Your task to perform on an android device: Open Chrome and go to the settings page Image 0: 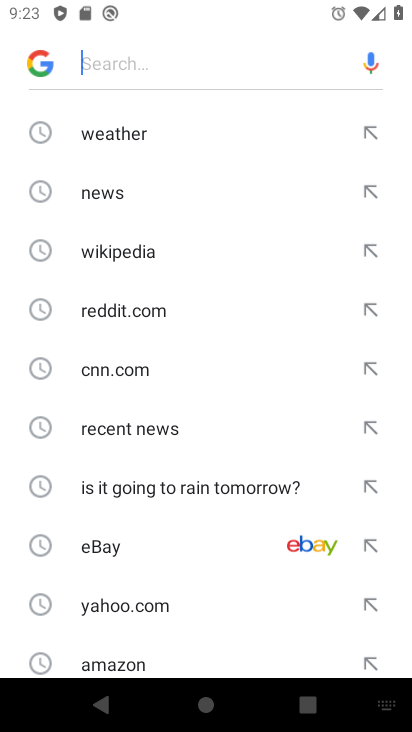
Step 0: press back button
Your task to perform on an android device: Open Chrome and go to the settings page Image 1: 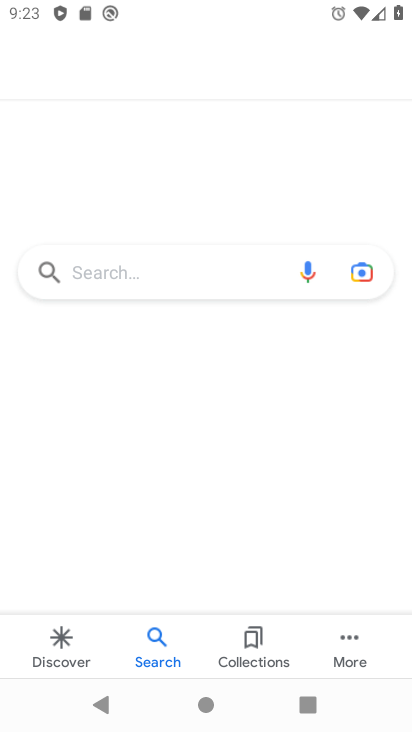
Step 1: press home button
Your task to perform on an android device: Open Chrome and go to the settings page Image 2: 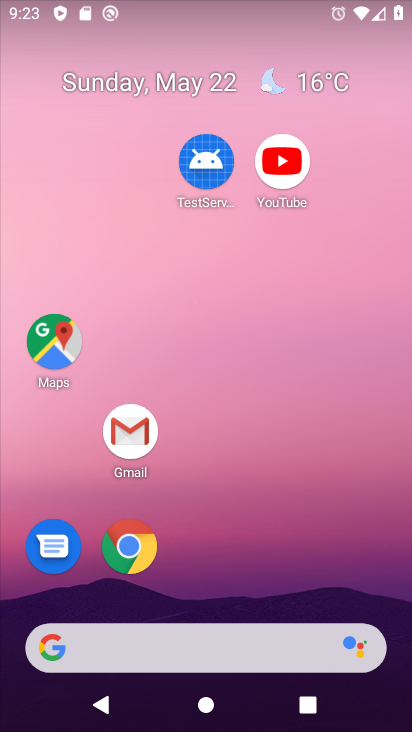
Step 2: drag from (263, 636) to (202, 23)
Your task to perform on an android device: Open Chrome and go to the settings page Image 3: 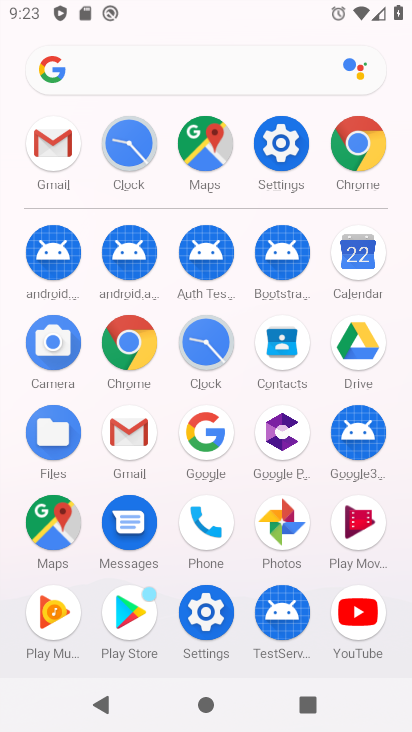
Step 3: click (279, 133)
Your task to perform on an android device: Open Chrome and go to the settings page Image 4: 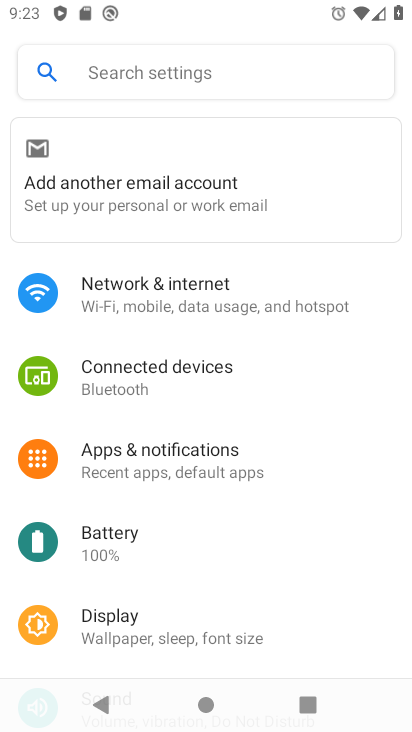
Step 4: drag from (156, 615) to (137, 251)
Your task to perform on an android device: Open Chrome and go to the settings page Image 5: 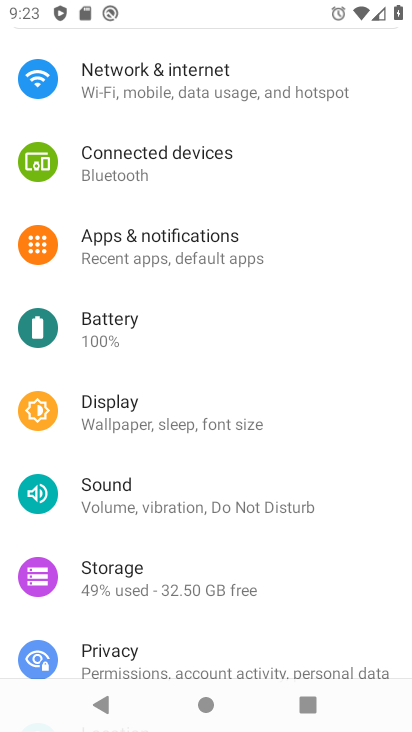
Step 5: drag from (210, 499) to (219, 265)
Your task to perform on an android device: Open Chrome and go to the settings page Image 6: 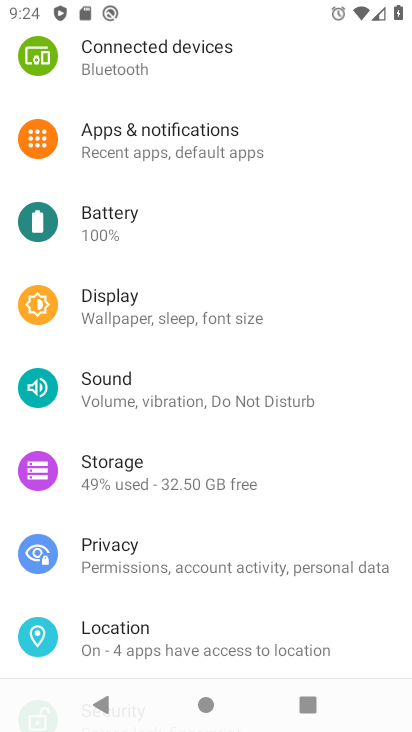
Step 6: drag from (129, 574) to (161, 252)
Your task to perform on an android device: Open Chrome and go to the settings page Image 7: 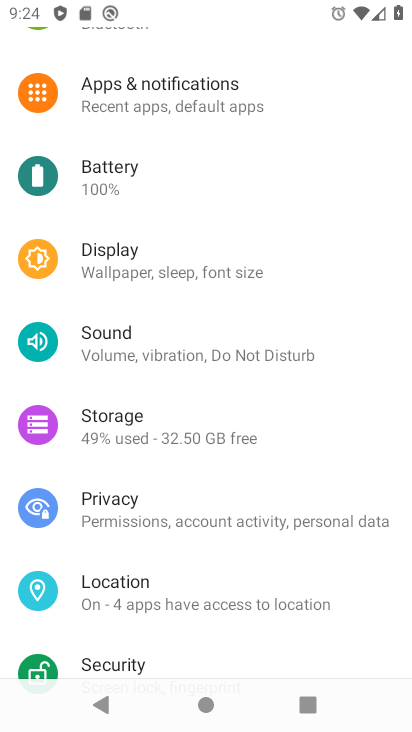
Step 7: drag from (190, 394) to (234, 153)
Your task to perform on an android device: Open Chrome and go to the settings page Image 8: 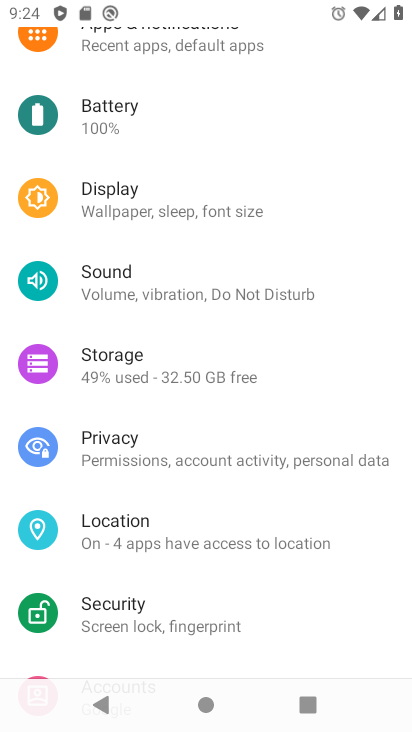
Step 8: press back button
Your task to perform on an android device: Open Chrome and go to the settings page Image 9: 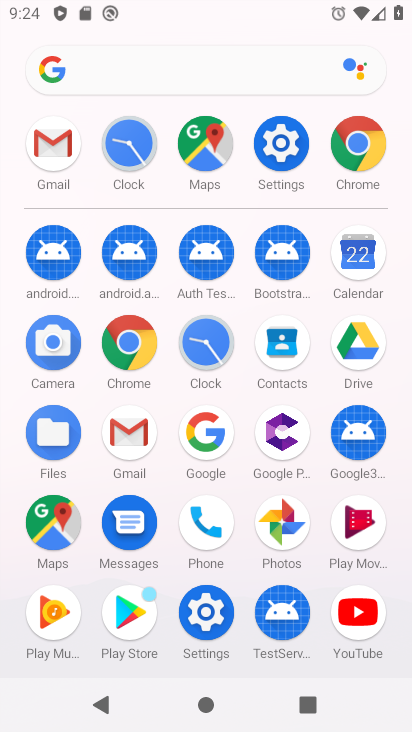
Step 9: click (346, 149)
Your task to perform on an android device: Open Chrome and go to the settings page Image 10: 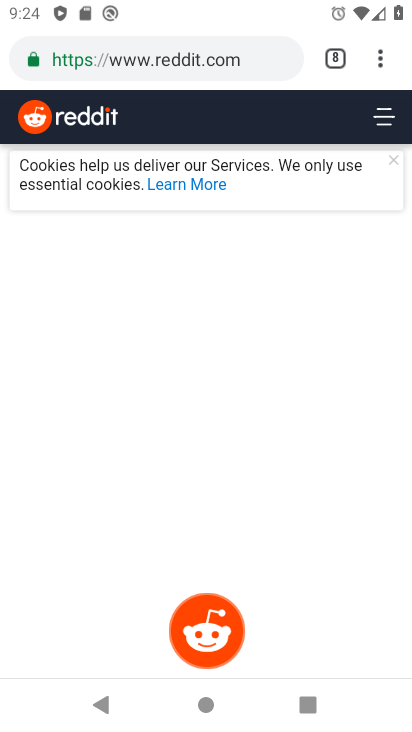
Step 10: drag from (380, 60) to (183, 570)
Your task to perform on an android device: Open Chrome and go to the settings page Image 11: 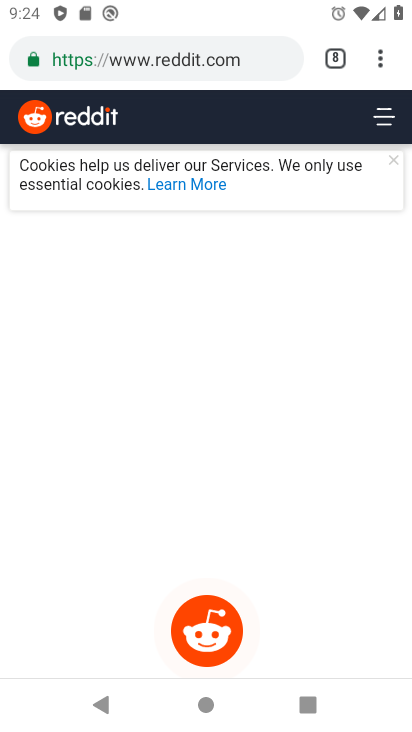
Step 11: click (183, 570)
Your task to perform on an android device: Open Chrome and go to the settings page Image 12: 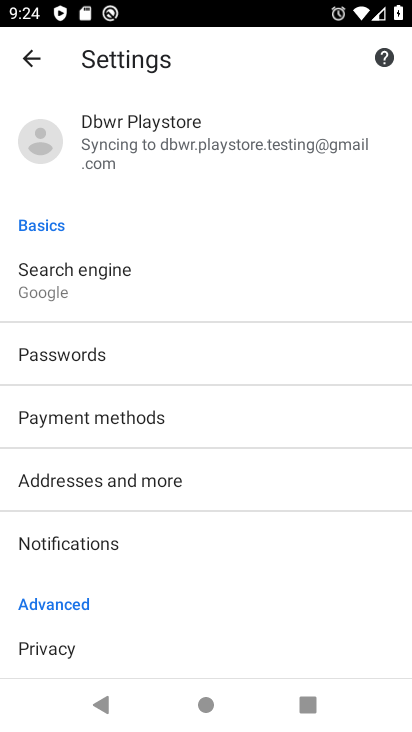
Step 12: task complete